Your task to perform on an android device: What is the news today? Image 0: 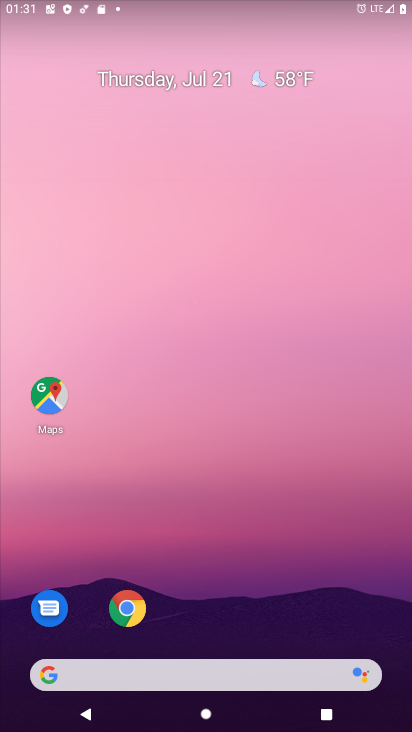
Step 0: press home button
Your task to perform on an android device: What is the news today? Image 1: 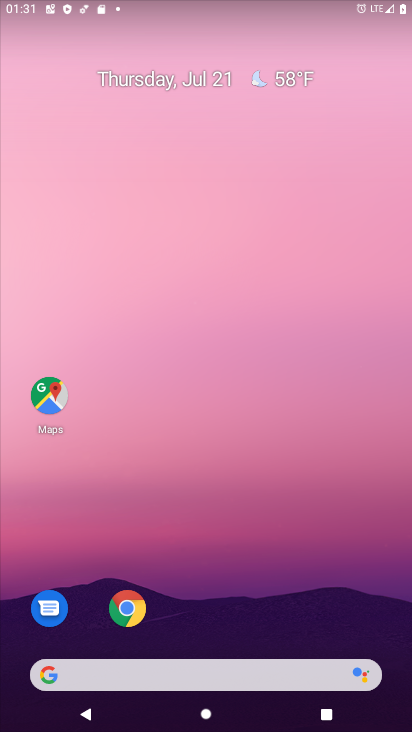
Step 1: task complete